Your task to perform on an android device: When is my next appointment? Image 0: 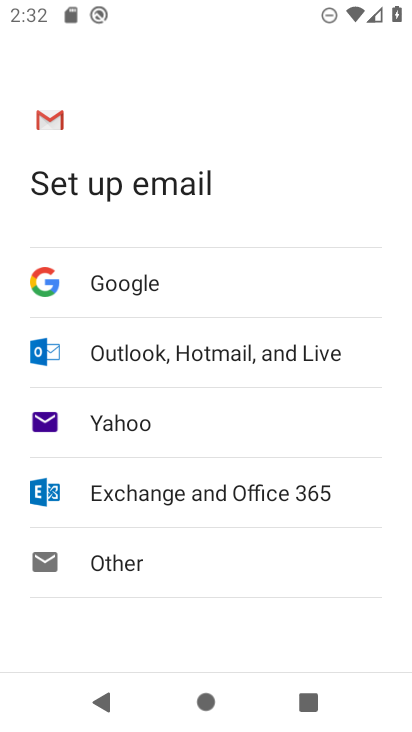
Step 0: press home button
Your task to perform on an android device: When is my next appointment? Image 1: 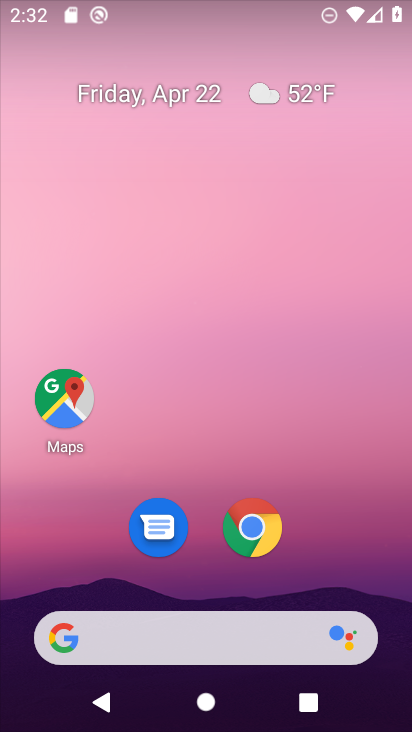
Step 1: drag from (330, 559) to (266, 31)
Your task to perform on an android device: When is my next appointment? Image 2: 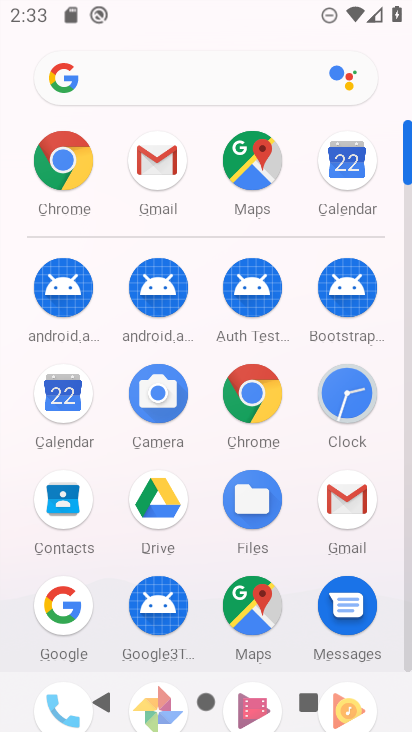
Step 2: click (58, 387)
Your task to perform on an android device: When is my next appointment? Image 3: 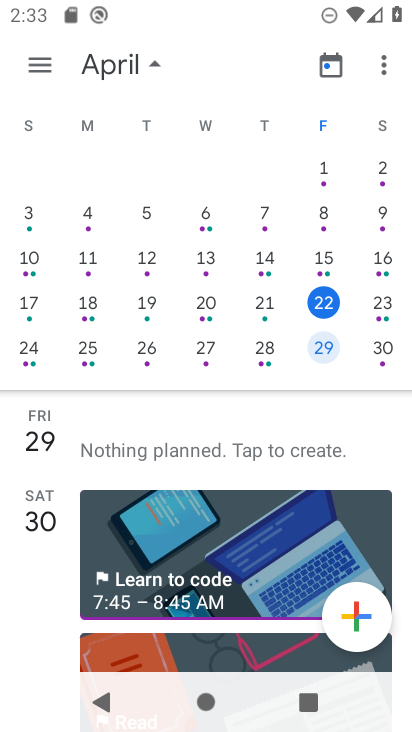
Step 3: drag from (191, 440) to (187, 392)
Your task to perform on an android device: When is my next appointment? Image 4: 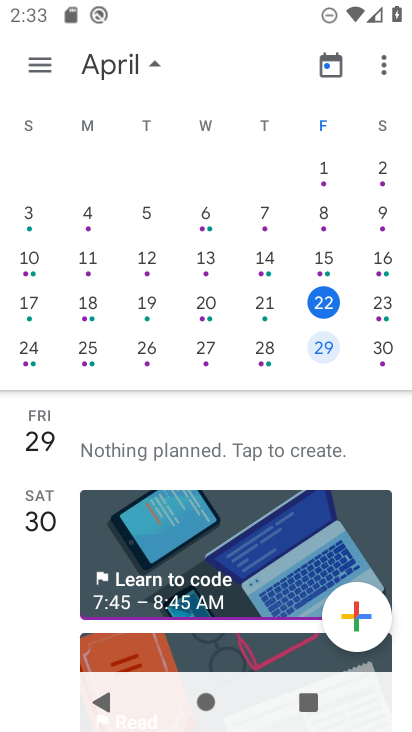
Step 4: click (15, 76)
Your task to perform on an android device: When is my next appointment? Image 5: 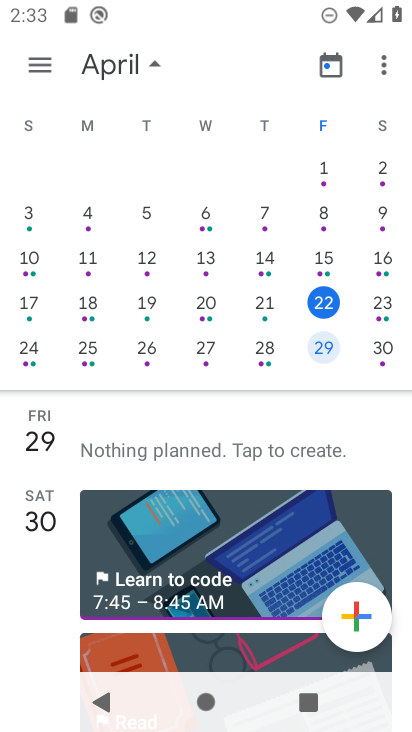
Step 5: click (36, 61)
Your task to perform on an android device: When is my next appointment? Image 6: 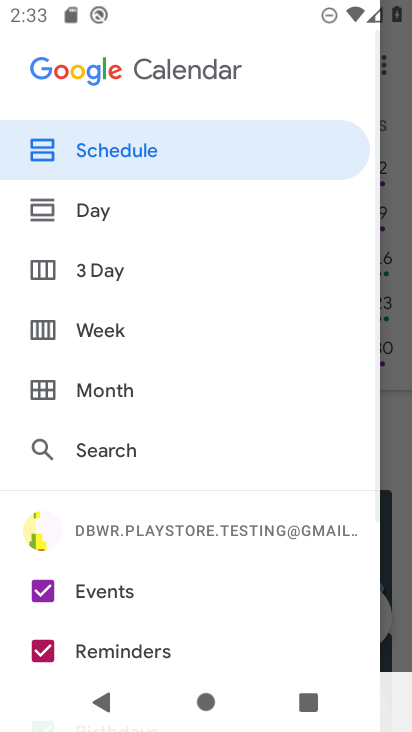
Step 6: click (105, 167)
Your task to perform on an android device: When is my next appointment? Image 7: 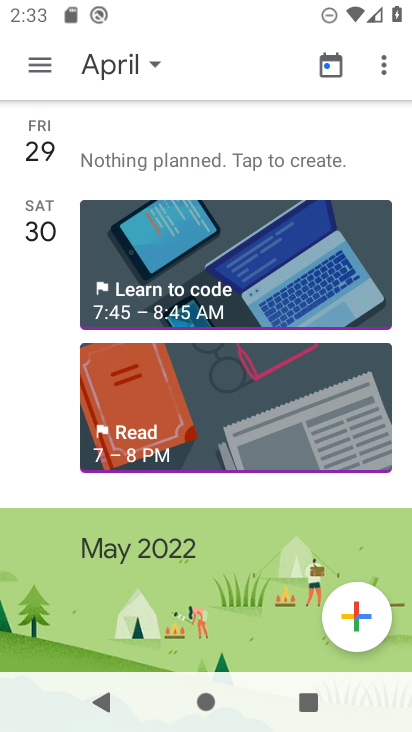
Step 7: task complete